Your task to perform on an android device: open chrome privacy settings Image 0: 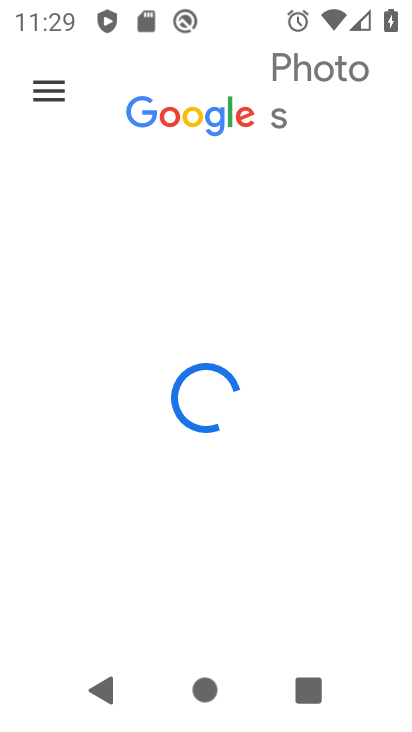
Step 0: press home button
Your task to perform on an android device: open chrome privacy settings Image 1: 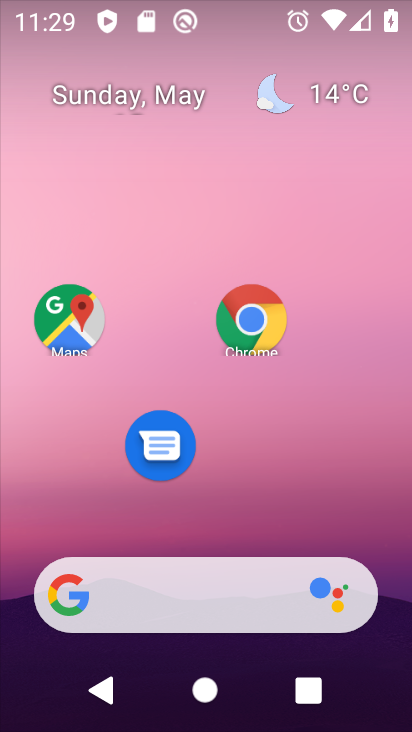
Step 1: click (250, 343)
Your task to perform on an android device: open chrome privacy settings Image 2: 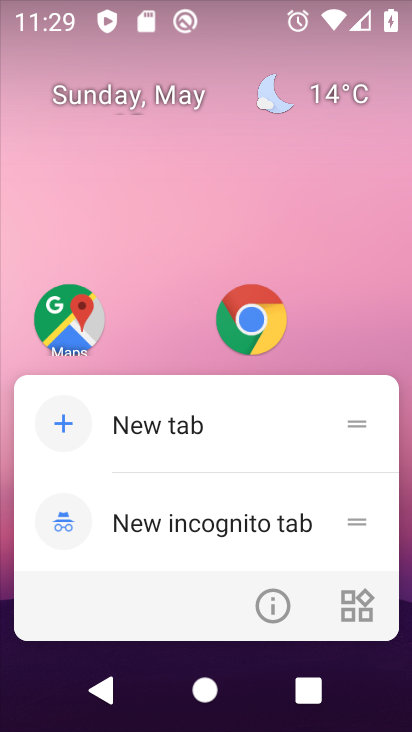
Step 2: click (255, 326)
Your task to perform on an android device: open chrome privacy settings Image 3: 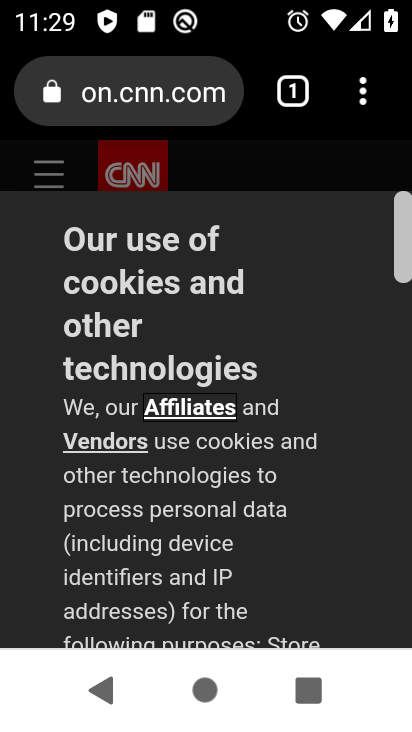
Step 3: drag from (372, 97) to (204, 479)
Your task to perform on an android device: open chrome privacy settings Image 4: 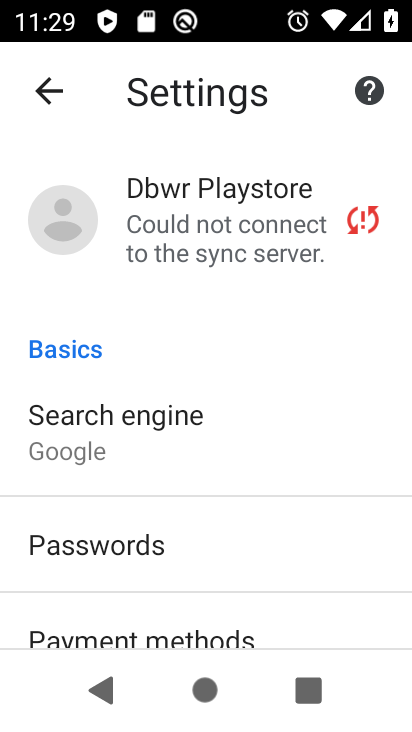
Step 4: drag from (196, 551) to (264, 208)
Your task to perform on an android device: open chrome privacy settings Image 5: 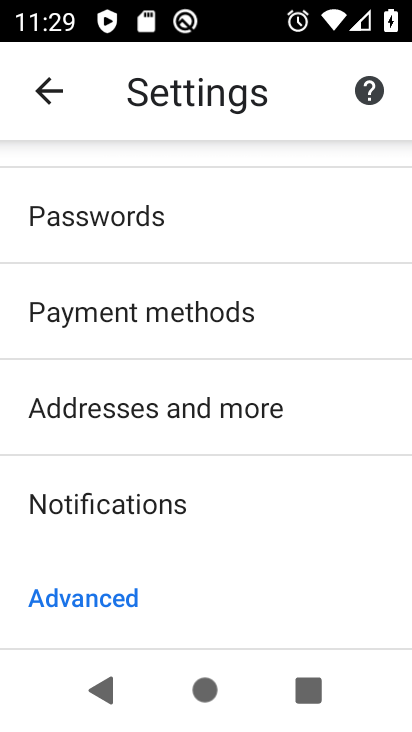
Step 5: drag from (229, 595) to (279, 328)
Your task to perform on an android device: open chrome privacy settings Image 6: 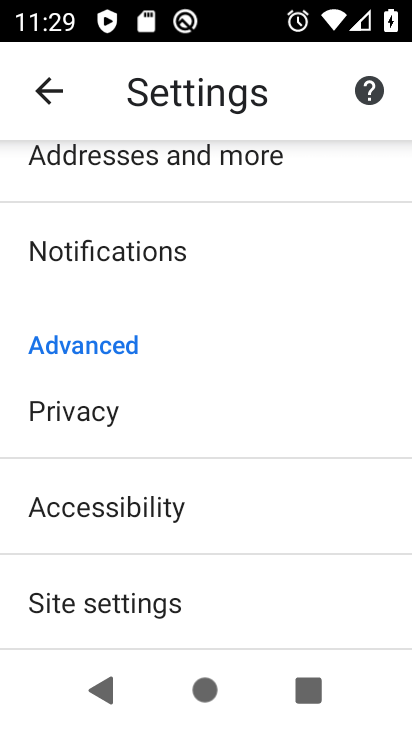
Step 6: click (104, 414)
Your task to perform on an android device: open chrome privacy settings Image 7: 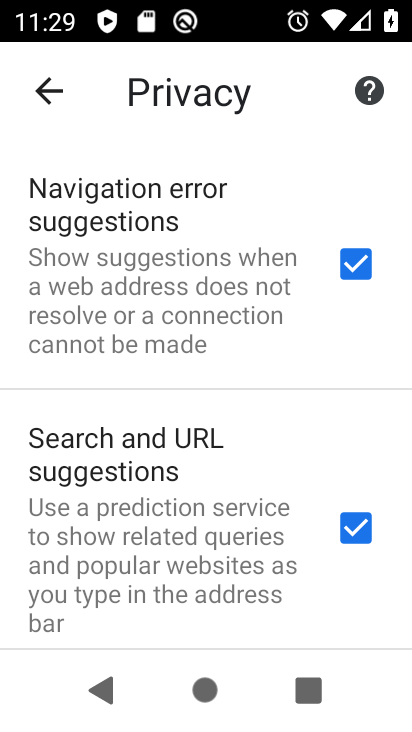
Step 7: task complete